Your task to perform on an android device: turn on javascript in the chrome app Image 0: 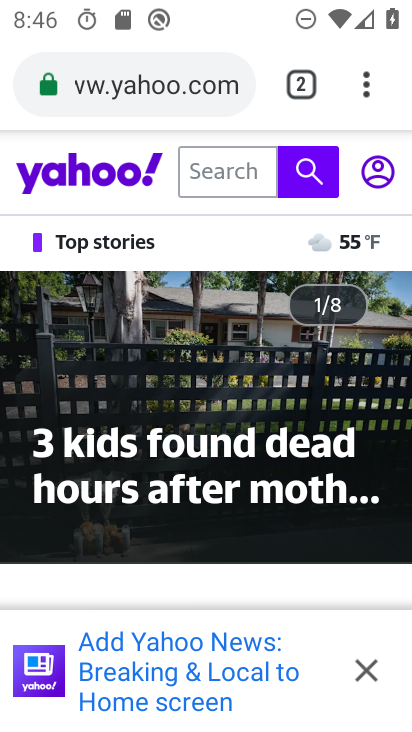
Step 0: press home button
Your task to perform on an android device: turn on javascript in the chrome app Image 1: 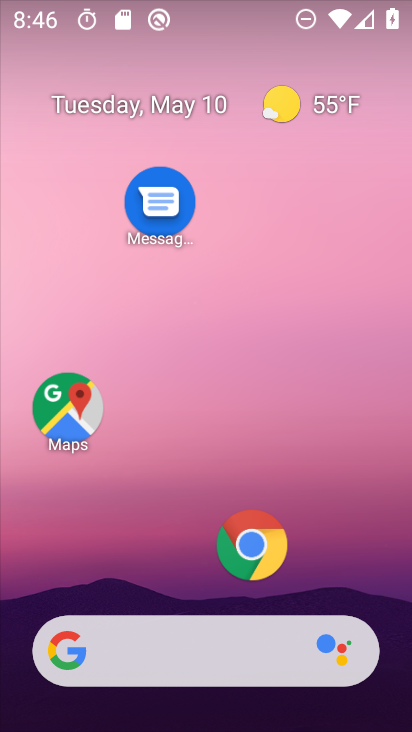
Step 1: click (220, 556)
Your task to perform on an android device: turn on javascript in the chrome app Image 2: 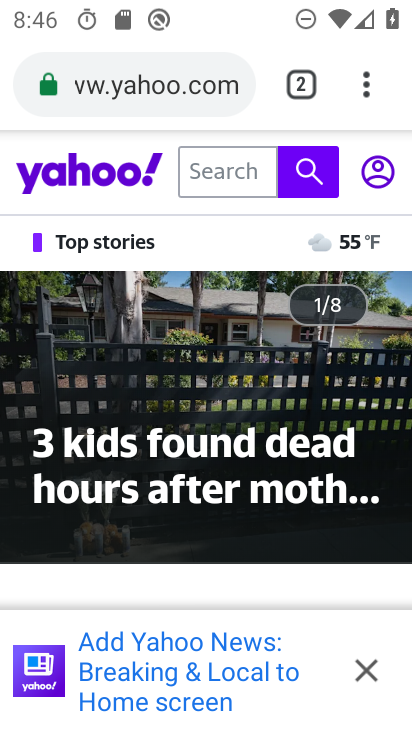
Step 2: drag from (352, 87) to (118, 611)
Your task to perform on an android device: turn on javascript in the chrome app Image 3: 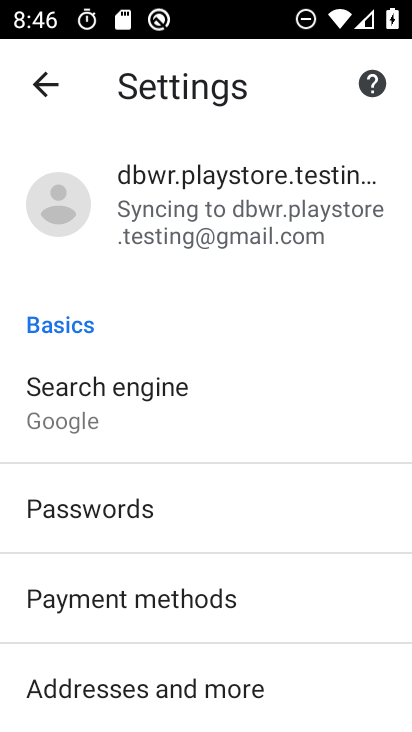
Step 3: drag from (123, 643) to (173, 305)
Your task to perform on an android device: turn on javascript in the chrome app Image 4: 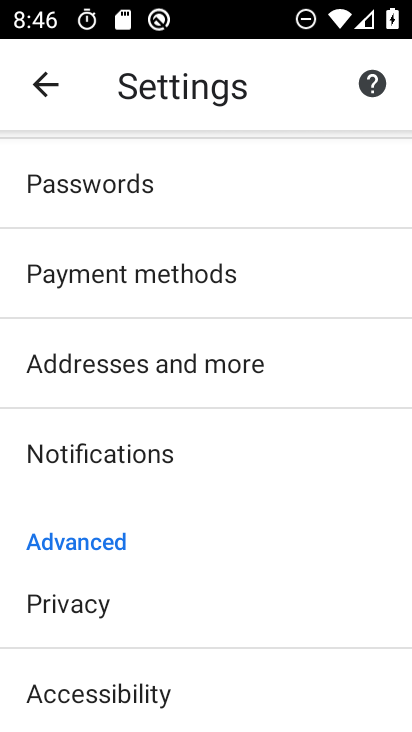
Step 4: drag from (175, 646) to (93, 577)
Your task to perform on an android device: turn on javascript in the chrome app Image 5: 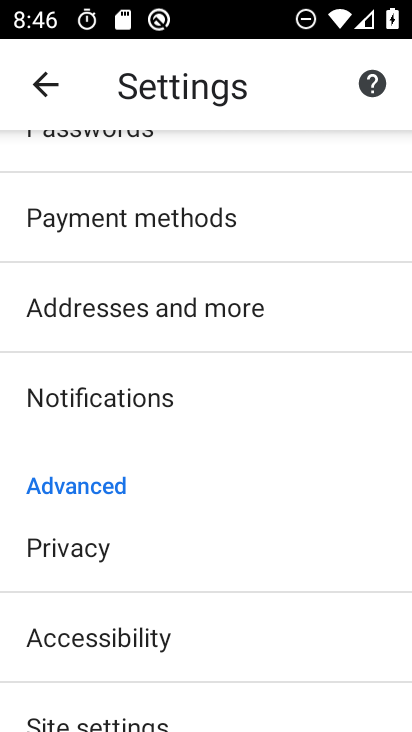
Step 5: drag from (102, 626) to (138, 313)
Your task to perform on an android device: turn on javascript in the chrome app Image 6: 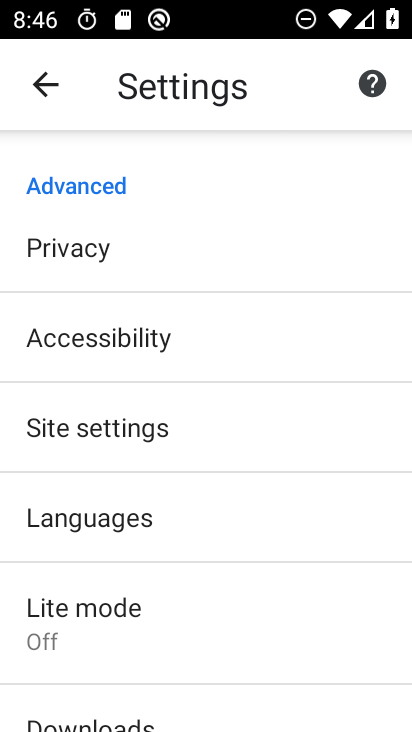
Step 6: drag from (128, 597) to (168, 470)
Your task to perform on an android device: turn on javascript in the chrome app Image 7: 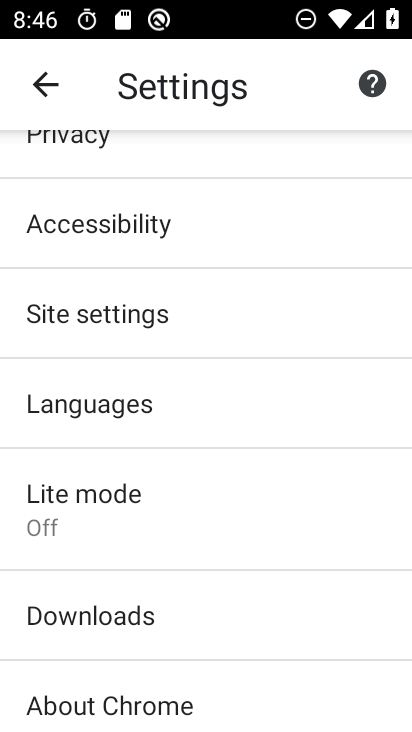
Step 7: click (156, 337)
Your task to perform on an android device: turn on javascript in the chrome app Image 8: 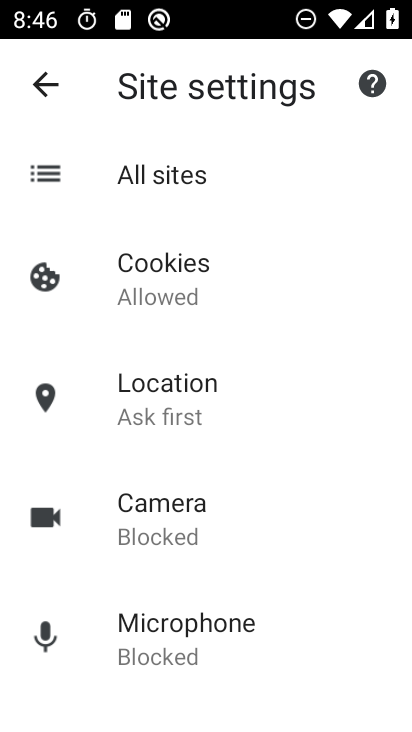
Step 8: drag from (185, 601) to (214, 256)
Your task to perform on an android device: turn on javascript in the chrome app Image 9: 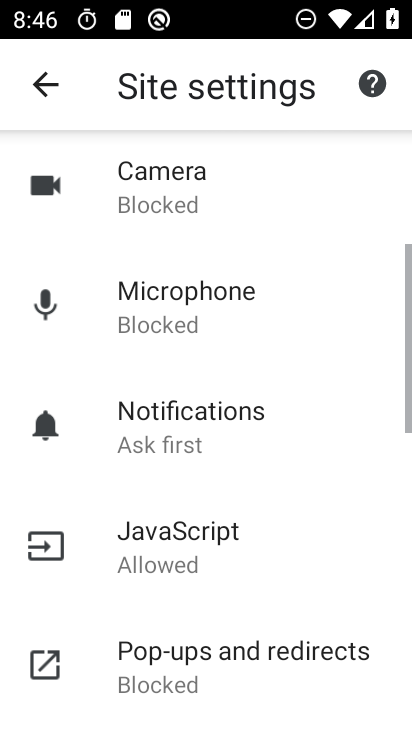
Step 9: click (200, 516)
Your task to perform on an android device: turn on javascript in the chrome app Image 10: 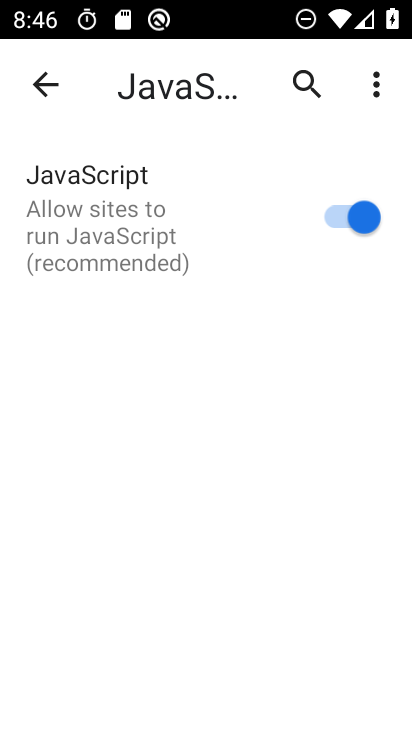
Step 10: task complete